Your task to perform on an android device: Go to Android settings Image 0: 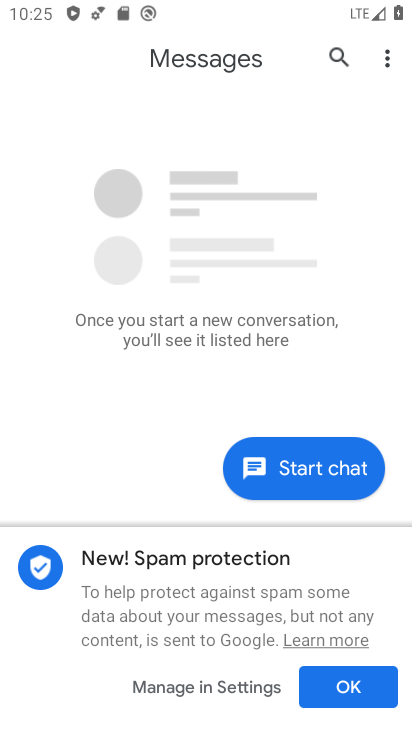
Step 0: press home button
Your task to perform on an android device: Go to Android settings Image 1: 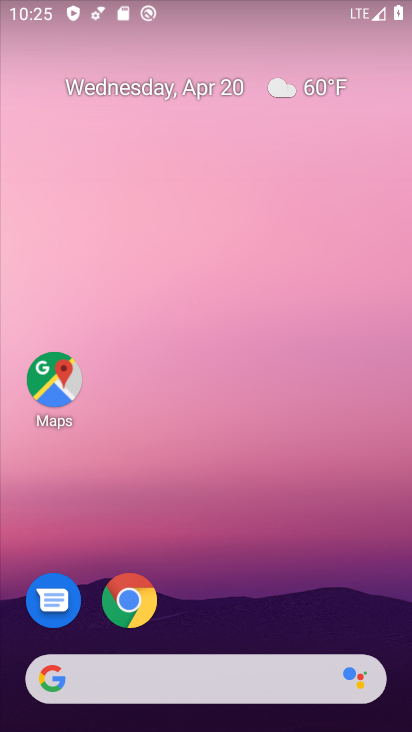
Step 1: drag from (234, 627) to (214, 184)
Your task to perform on an android device: Go to Android settings Image 2: 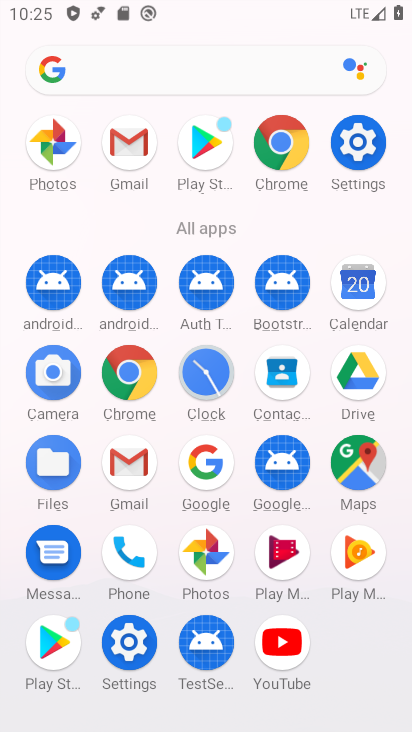
Step 2: click (357, 140)
Your task to perform on an android device: Go to Android settings Image 3: 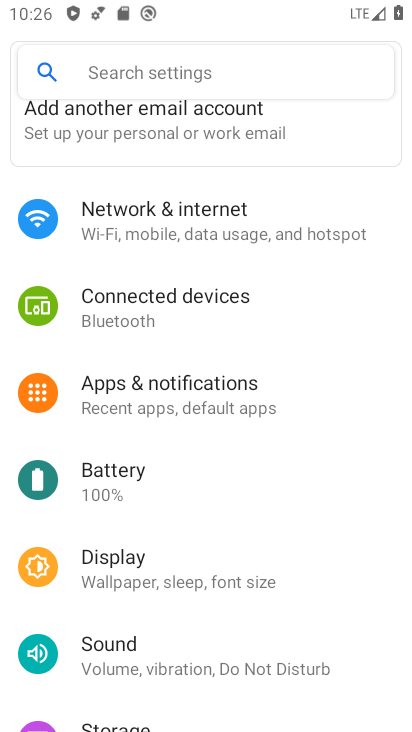
Step 3: task complete